Your task to perform on an android device: What's the weather going to be this weekend? Image 0: 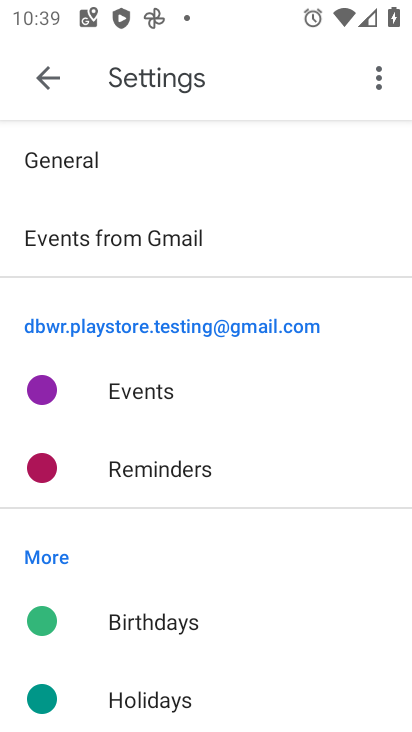
Step 0: press home button
Your task to perform on an android device: What's the weather going to be this weekend? Image 1: 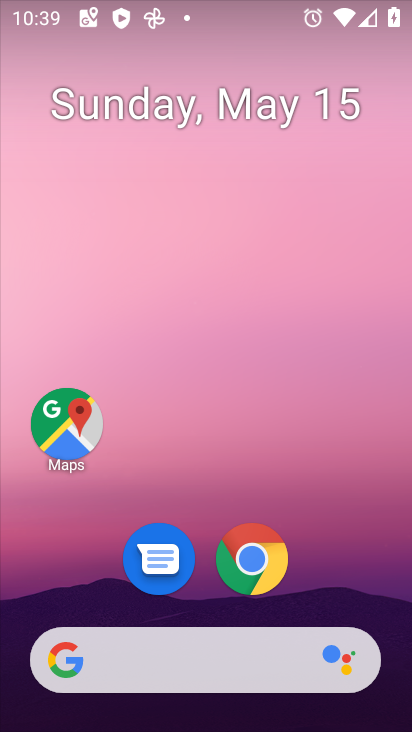
Step 1: drag from (345, 574) to (293, 16)
Your task to perform on an android device: What's the weather going to be this weekend? Image 2: 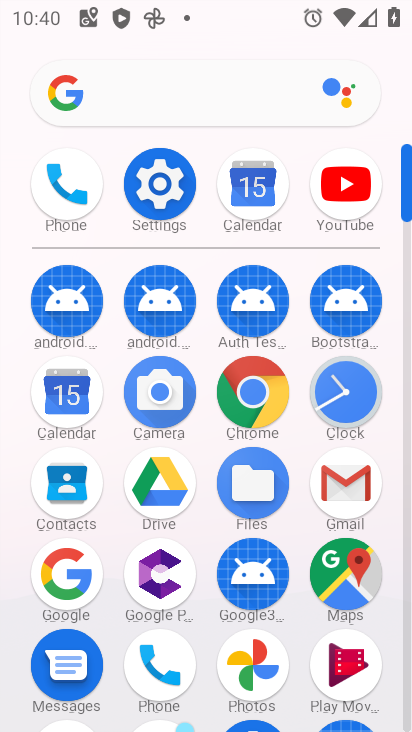
Step 2: click (83, 400)
Your task to perform on an android device: What's the weather going to be this weekend? Image 3: 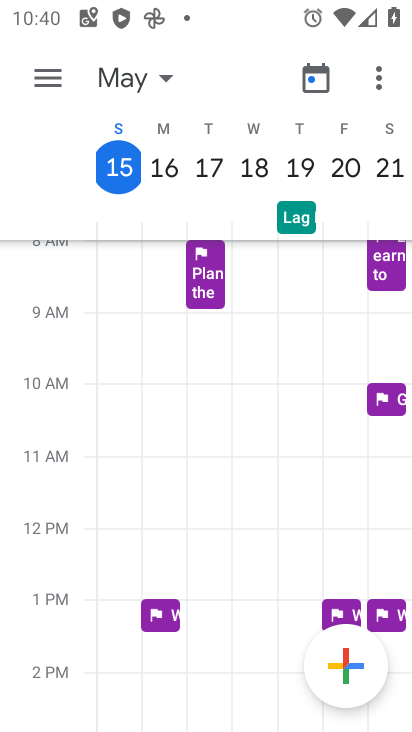
Step 3: task complete